Your task to perform on an android device: Go to Wikipedia Image 0: 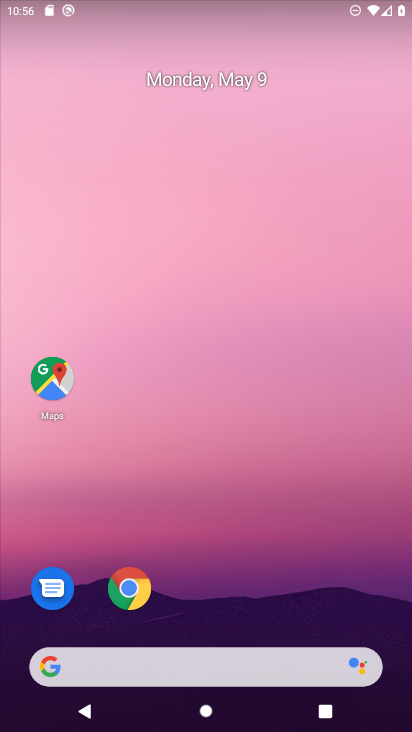
Step 0: click (135, 598)
Your task to perform on an android device: Go to Wikipedia Image 1: 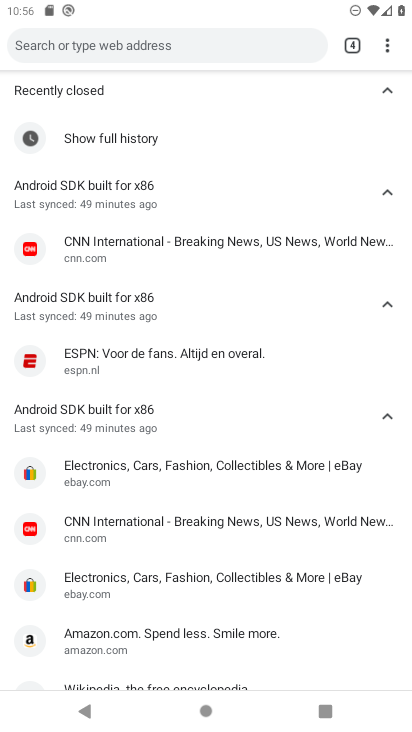
Step 1: click (159, 683)
Your task to perform on an android device: Go to Wikipedia Image 2: 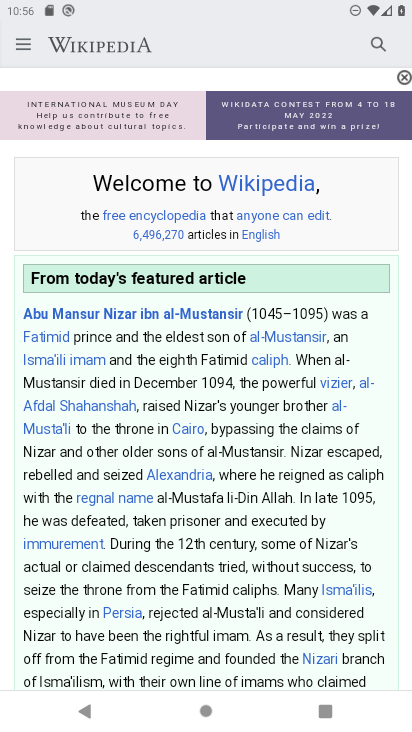
Step 2: task complete